Your task to perform on an android device: find which apps use the phone's location Image 0: 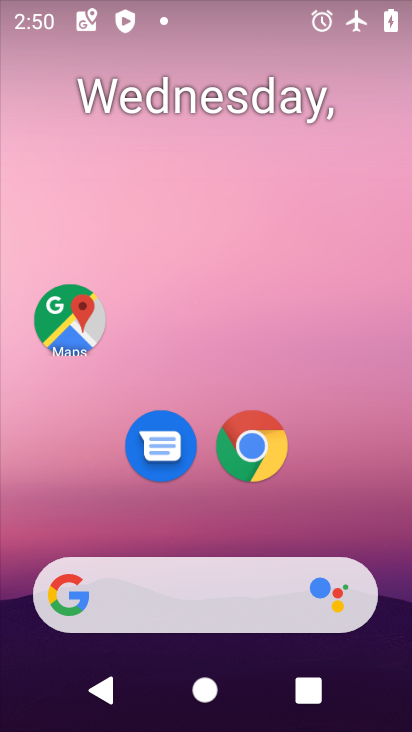
Step 0: drag from (202, 527) to (209, 233)
Your task to perform on an android device: find which apps use the phone's location Image 1: 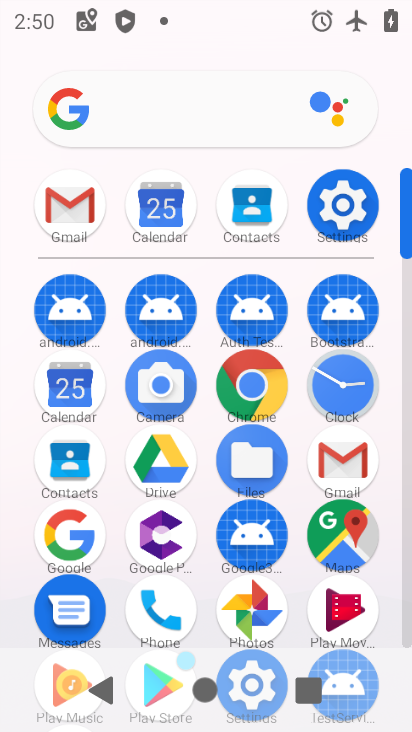
Step 1: click (334, 204)
Your task to perform on an android device: find which apps use the phone's location Image 2: 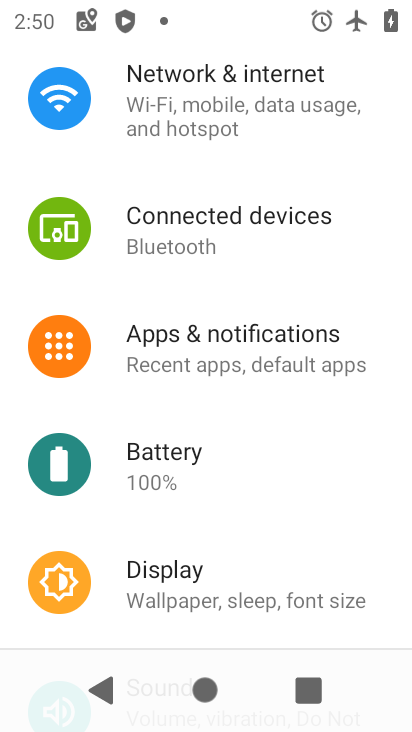
Step 2: drag from (286, 556) to (297, 301)
Your task to perform on an android device: find which apps use the phone's location Image 3: 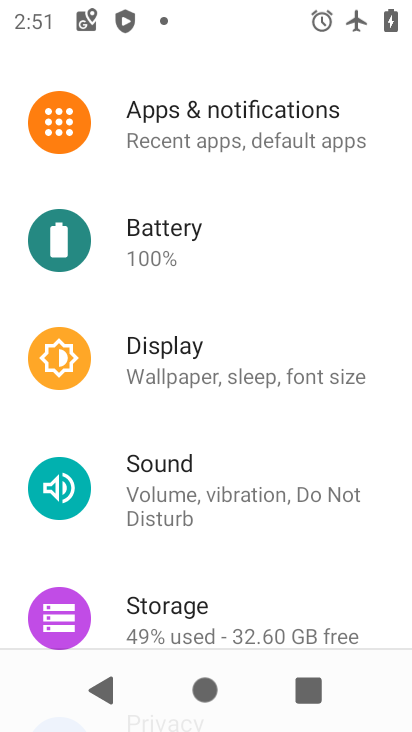
Step 3: drag from (236, 573) to (277, 332)
Your task to perform on an android device: find which apps use the phone's location Image 4: 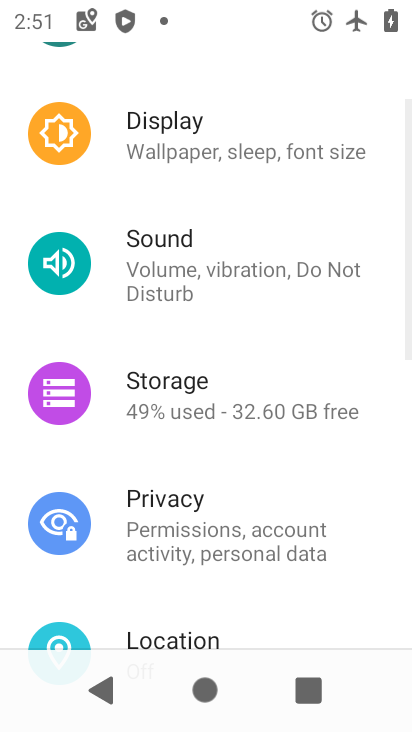
Step 4: click (286, 369)
Your task to perform on an android device: find which apps use the phone's location Image 5: 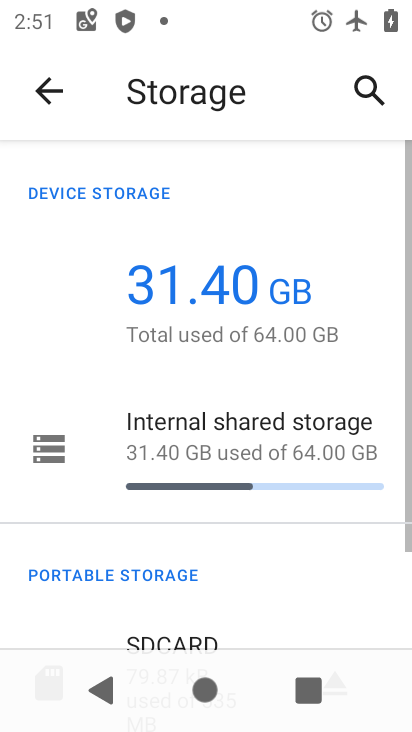
Step 5: drag from (218, 508) to (255, 362)
Your task to perform on an android device: find which apps use the phone's location Image 6: 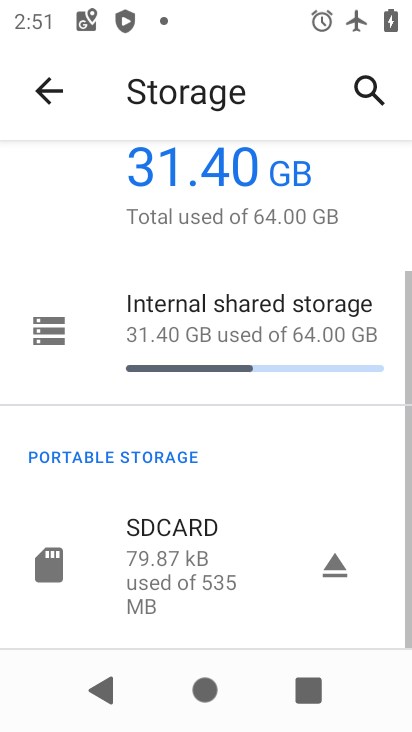
Step 6: click (49, 85)
Your task to perform on an android device: find which apps use the phone's location Image 7: 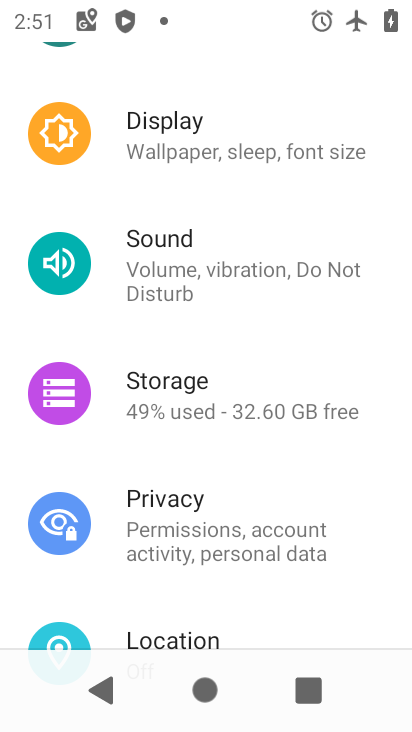
Step 7: drag from (182, 606) to (250, 335)
Your task to perform on an android device: find which apps use the phone's location Image 8: 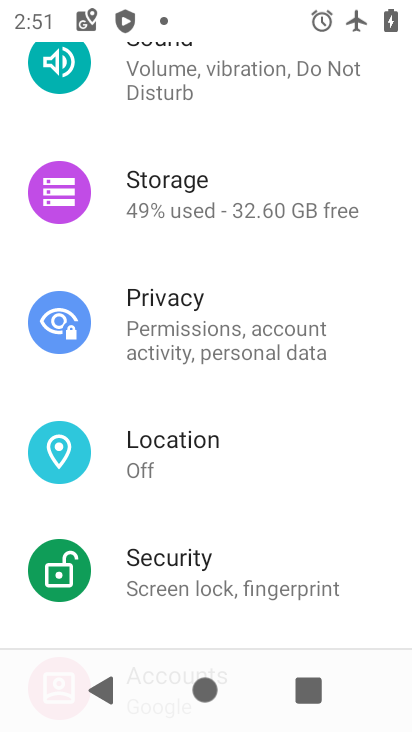
Step 8: click (210, 468)
Your task to perform on an android device: find which apps use the phone's location Image 9: 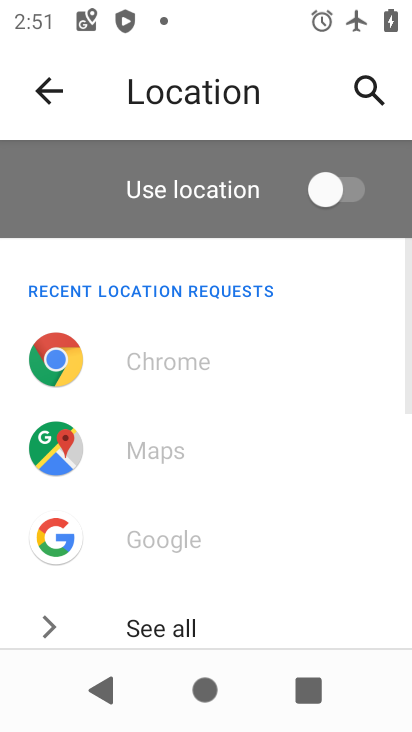
Step 9: drag from (243, 589) to (305, 370)
Your task to perform on an android device: find which apps use the phone's location Image 10: 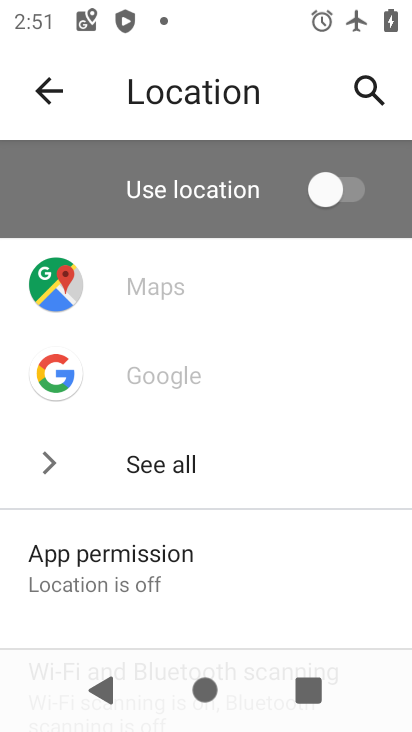
Step 10: drag from (251, 527) to (289, 325)
Your task to perform on an android device: find which apps use the phone's location Image 11: 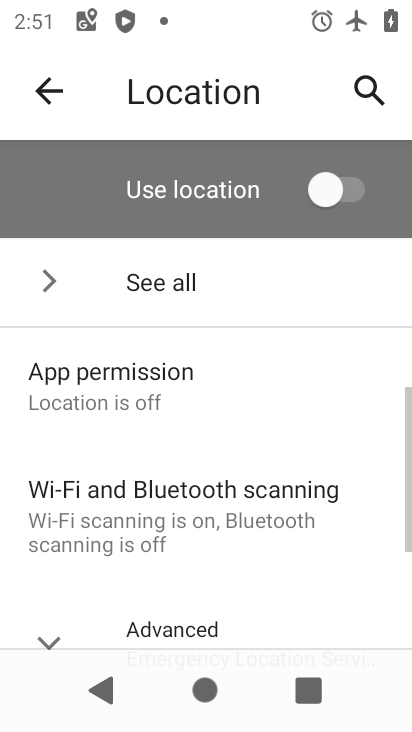
Step 11: drag from (250, 552) to (295, 346)
Your task to perform on an android device: find which apps use the phone's location Image 12: 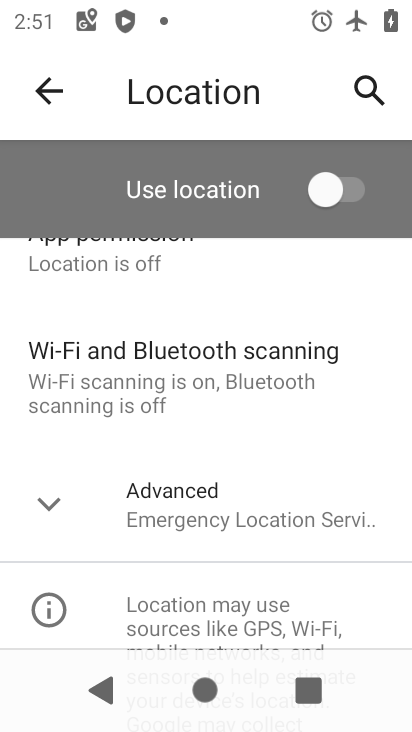
Step 12: drag from (230, 545) to (208, 581)
Your task to perform on an android device: find which apps use the phone's location Image 13: 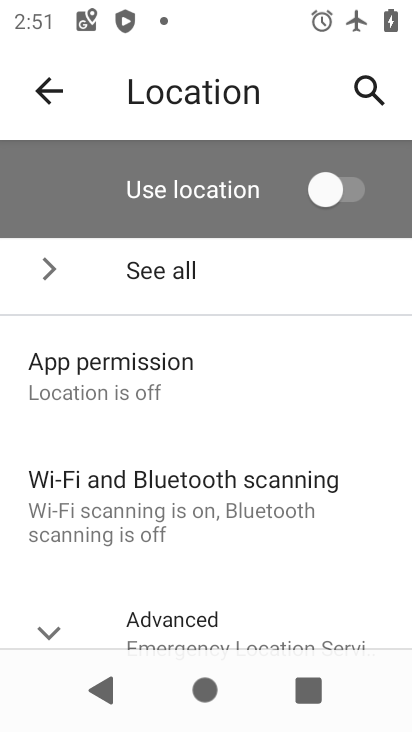
Step 13: click (159, 364)
Your task to perform on an android device: find which apps use the phone's location Image 14: 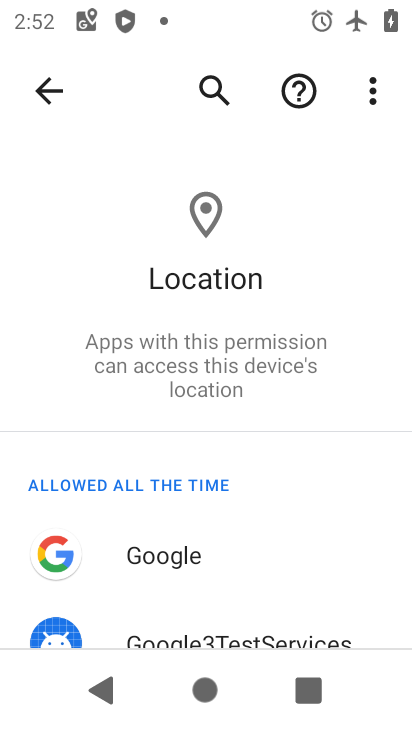
Step 14: task complete